Your task to perform on an android device: turn on bluetooth scan Image 0: 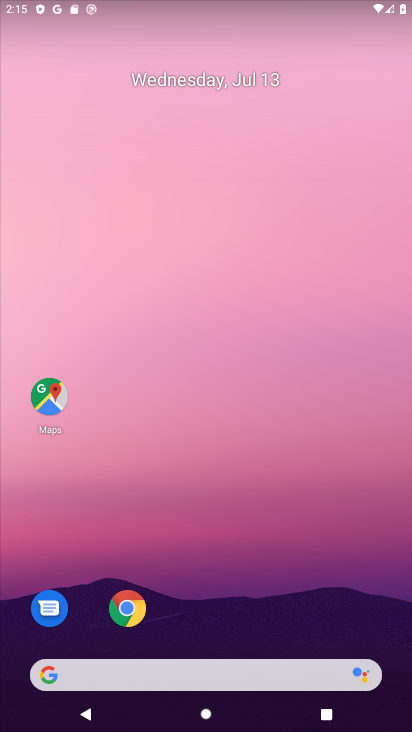
Step 0: drag from (192, 614) to (109, 134)
Your task to perform on an android device: turn on bluetooth scan Image 1: 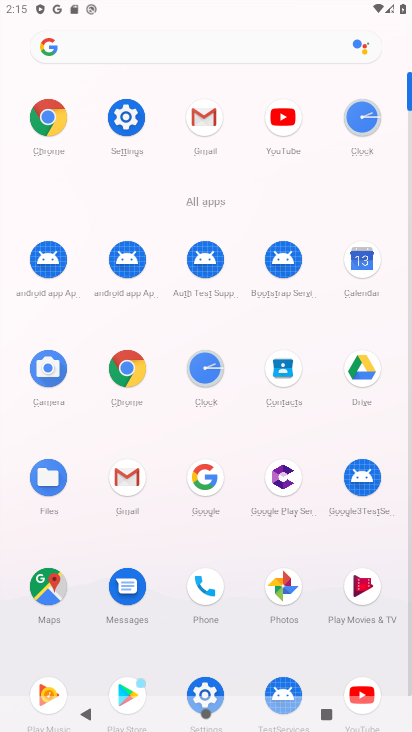
Step 1: click (120, 133)
Your task to perform on an android device: turn on bluetooth scan Image 2: 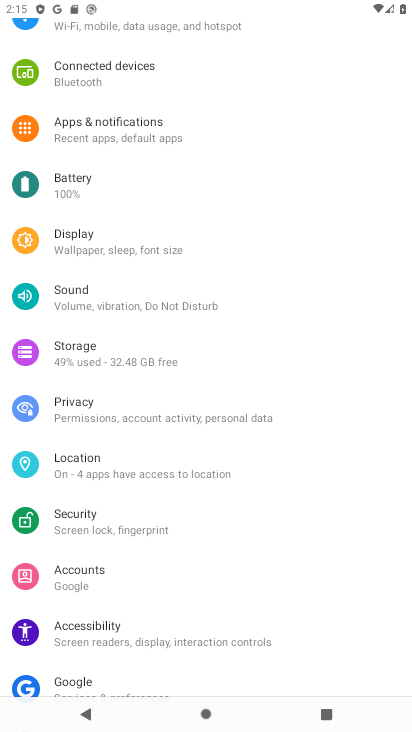
Step 2: click (135, 463)
Your task to perform on an android device: turn on bluetooth scan Image 3: 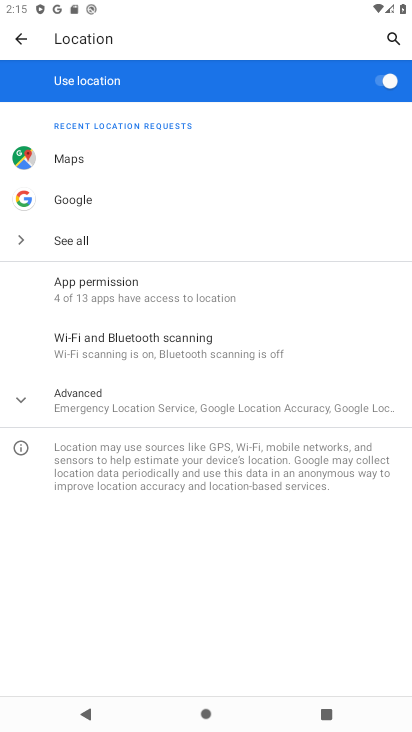
Step 3: click (236, 351)
Your task to perform on an android device: turn on bluetooth scan Image 4: 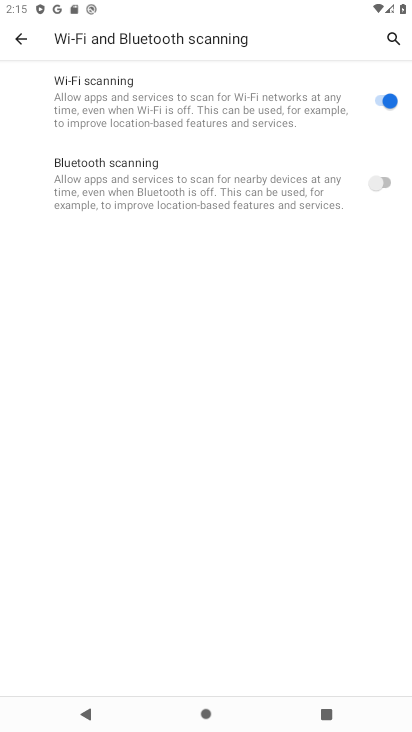
Step 4: click (390, 185)
Your task to perform on an android device: turn on bluetooth scan Image 5: 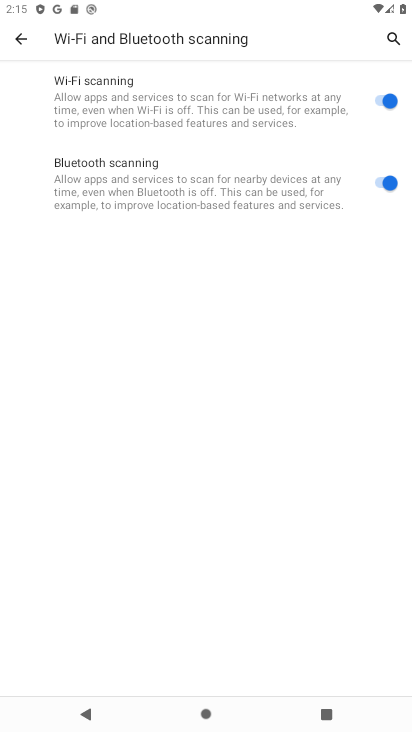
Step 5: task complete